Your task to perform on an android device: open the mobile data screen to see how much data has been used Image 0: 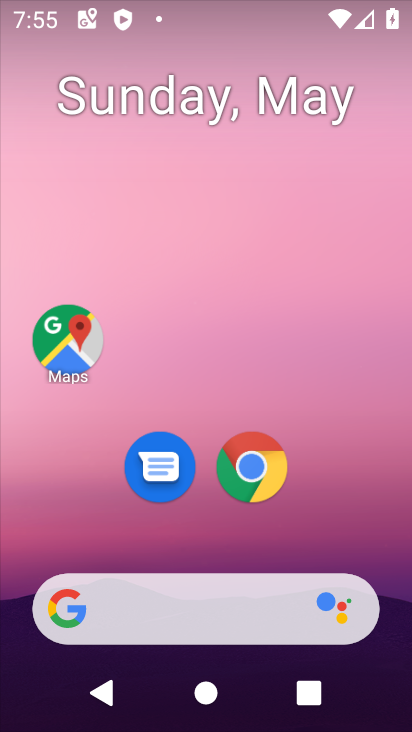
Step 0: drag from (40, 640) to (280, 210)
Your task to perform on an android device: open the mobile data screen to see how much data has been used Image 1: 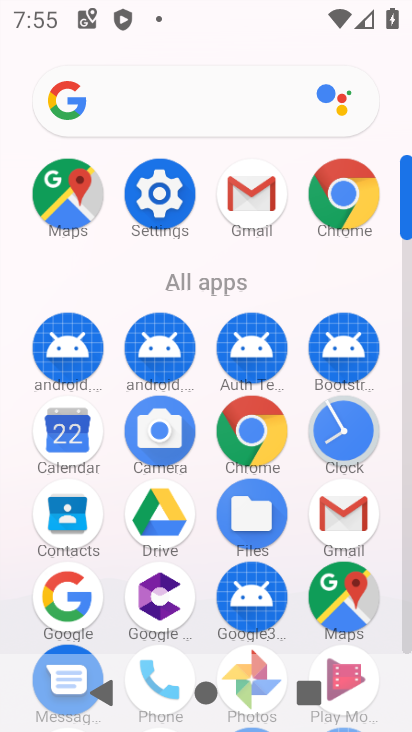
Step 1: click (146, 205)
Your task to perform on an android device: open the mobile data screen to see how much data has been used Image 2: 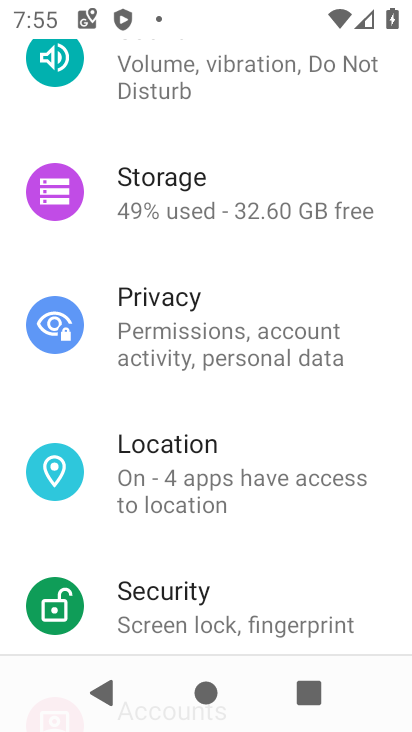
Step 2: drag from (200, 153) to (194, 562)
Your task to perform on an android device: open the mobile data screen to see how much data has been used Image 3: 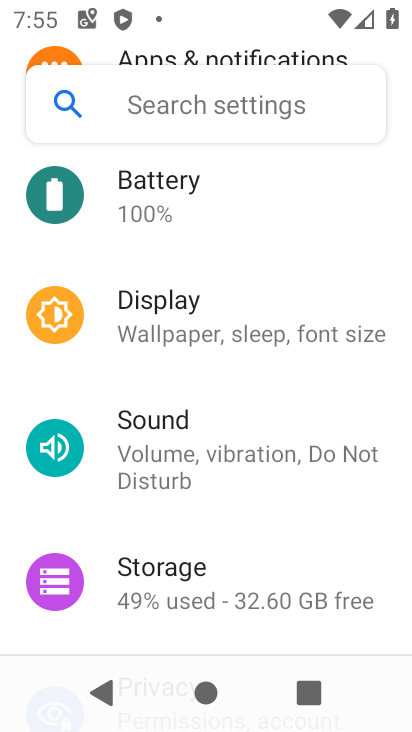
Step 3: drag from (229, 216) to (231, 627)
Your task to perform on an android device: open the mobile data screen to see how much data has been used Image 4: 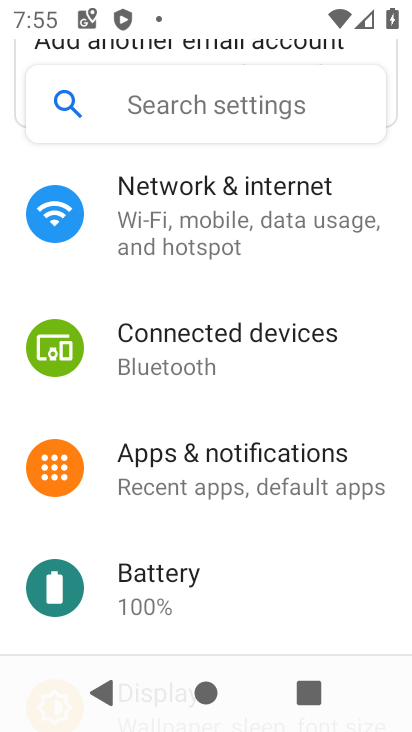
Step 4: click (260, 199)
Your task to perform on an android device: open the mobile data screen to see how much data has been used Image 5: 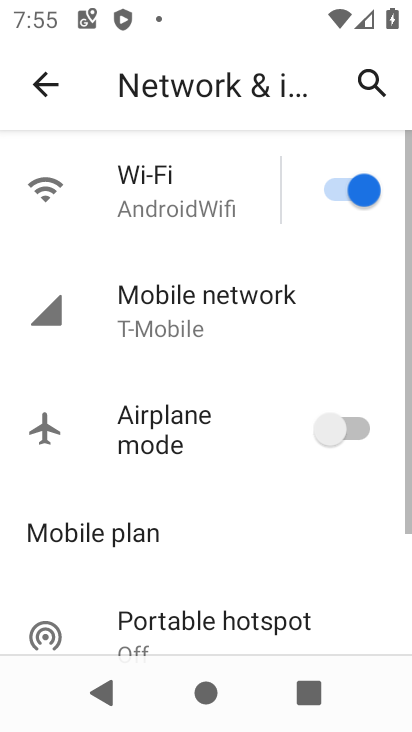
Step 5: click (236, 307)
Your task to perform on an android device: open the mobile data screen to see how much data has been used Image 6: 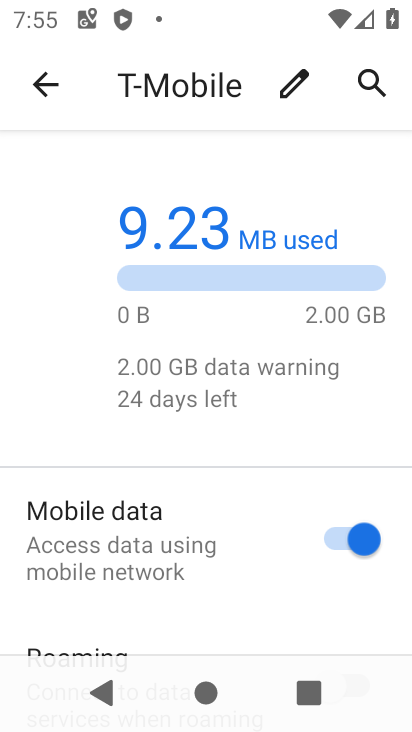
Step 6: task complete